Your task to perform on an android device: Open the phone app and click the voicemail tab. Image 0: 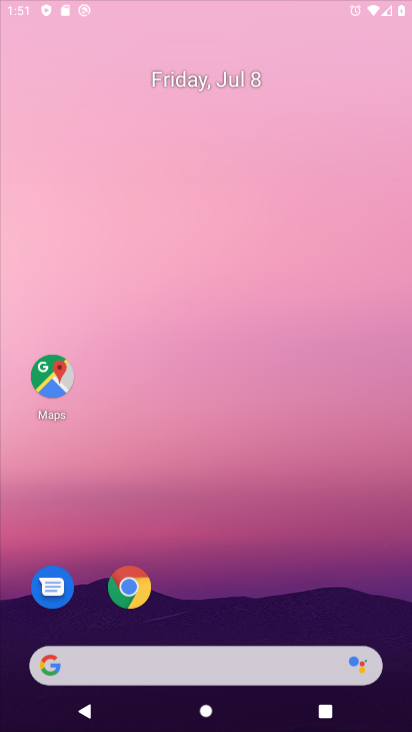
Step 0: click (323, 194)
Your task to perform on an android device: Open the phone app and click the voicemail tab. Image 1: 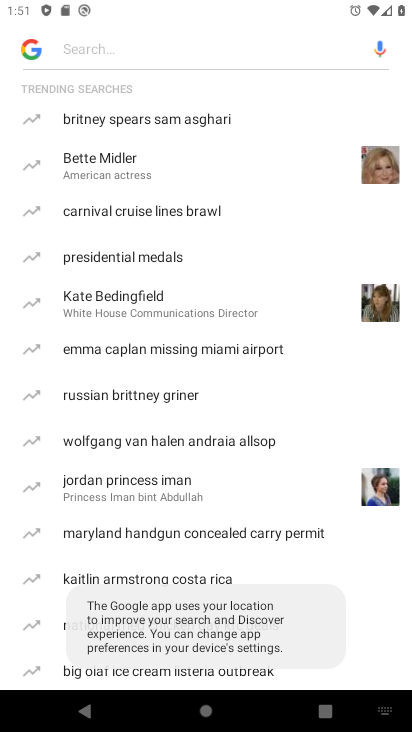
Step 1: press home button
Your task to perform on an android device: Open the phone app and click the voicemail tab. Image 2: 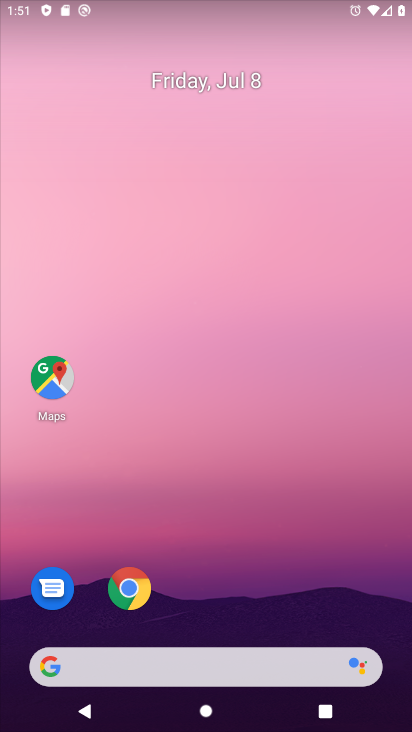
Step 2: drag from (164, 618) to (283, 39)
Your task to perform on an android device: Open the phone app and click the voicemail tab. Image 3: 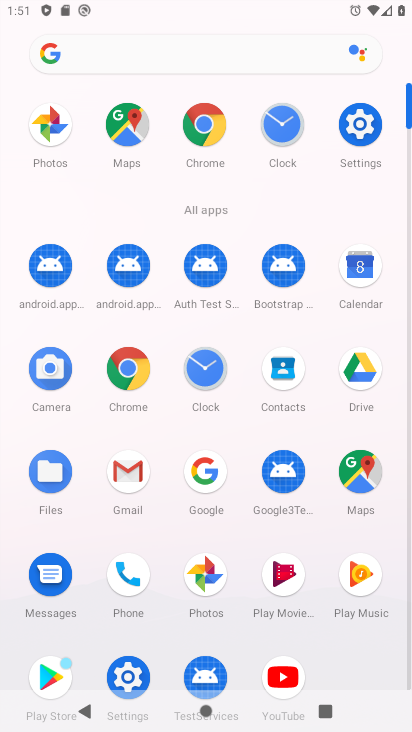
Step 3: click (131, 591)
Your task to perform on an android device: Open the phone app and click the voicemail tab. Image 4: 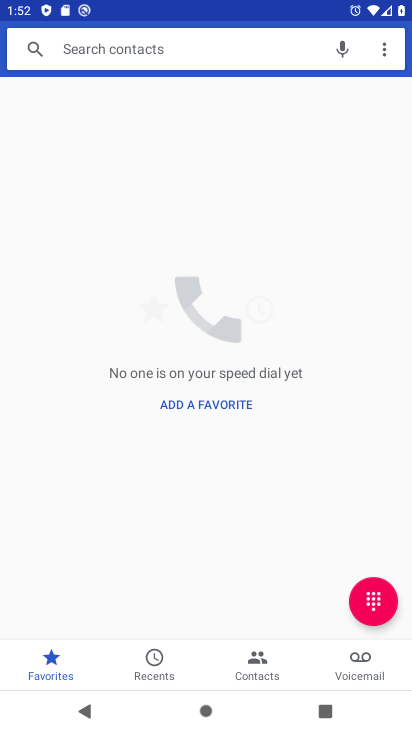
Step 4: click (366, 675)
Your task to perform on an android device: Open the phone app and click the voicemail tab. Image 5: 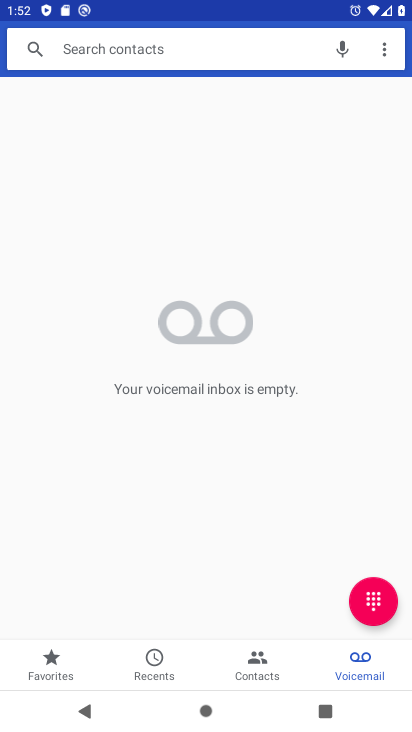
Step 5: task complete